Your task to perform on an android device: Open internet settings Image 0: 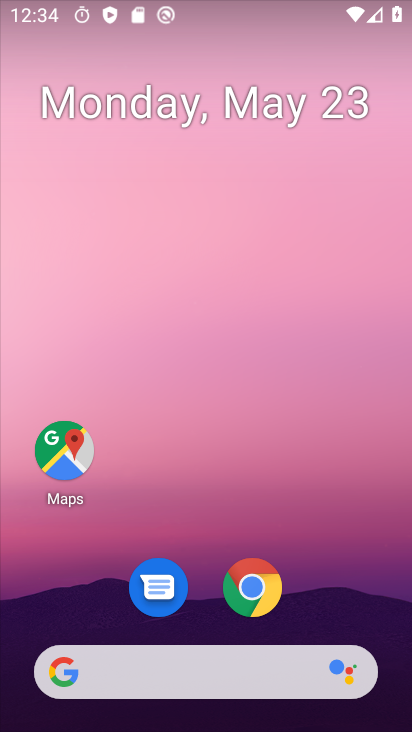
Step 0: drag from (191, 583) to (221, 91)
Your task to perform on an android device: Open internet settings Image 1: 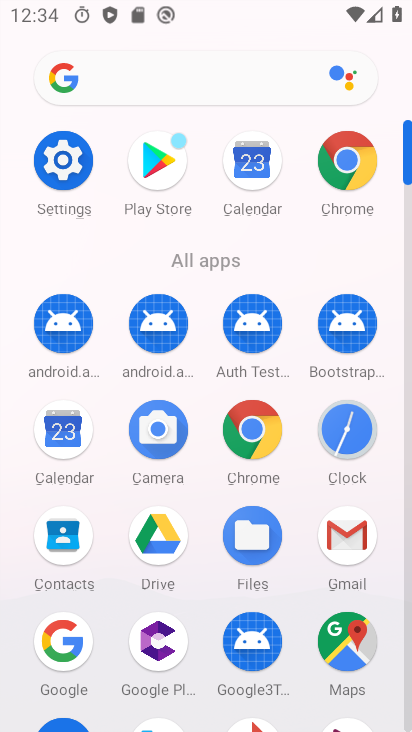
Step 1: click (348, 435)
Your task to perform on an android device: Open internet settings Image 2: 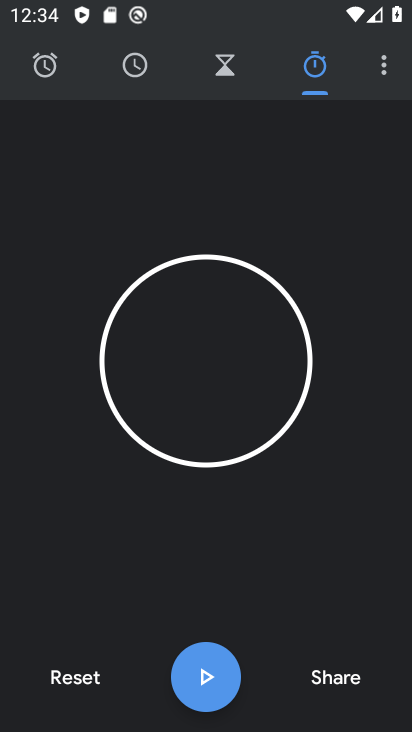
Step 2: press back button
Your task to perform on an android device: Open internet settings Image 3: 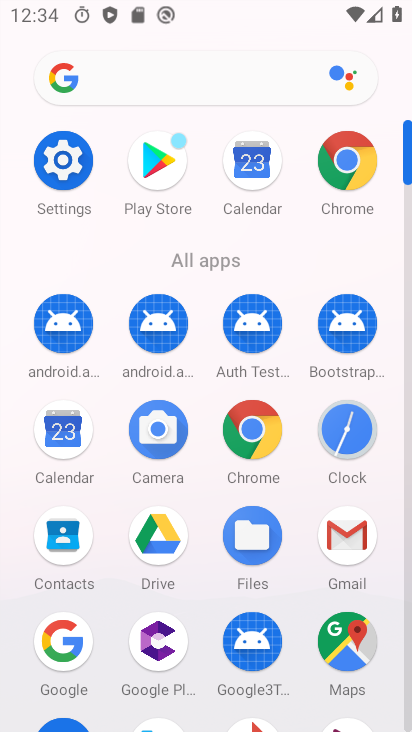
Step 3: drag from (176, 665) to (261, 119)
Your task to perform on an android device: Open internet settings Image 4: 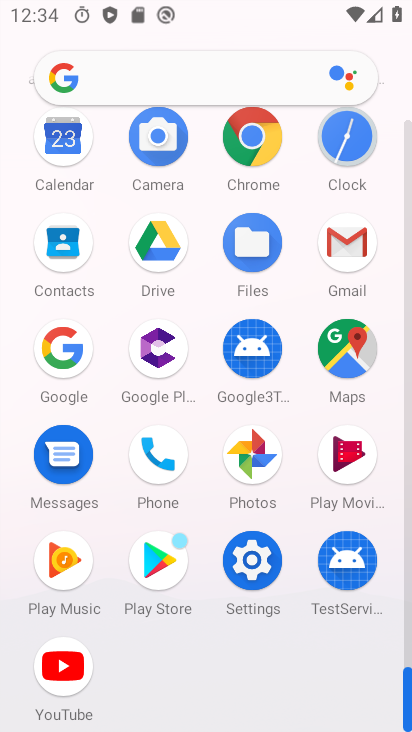
Step 4: click (260, 558)
Your task to perform on an android device: Open internet settings Image 5: 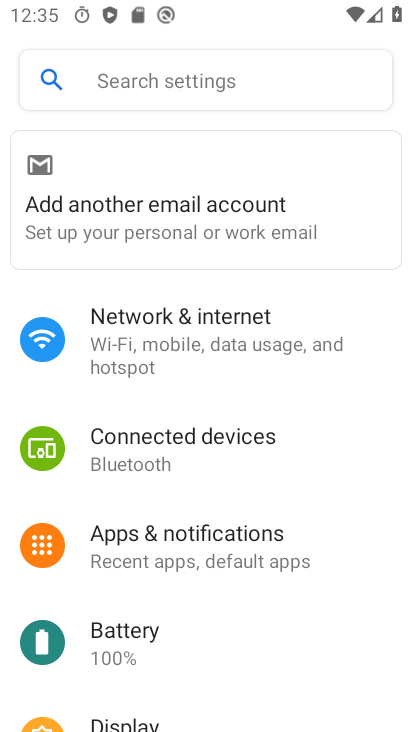
Step 5: click (191, 328)
Your task to perform on an android device: Open internet settings Image 6: 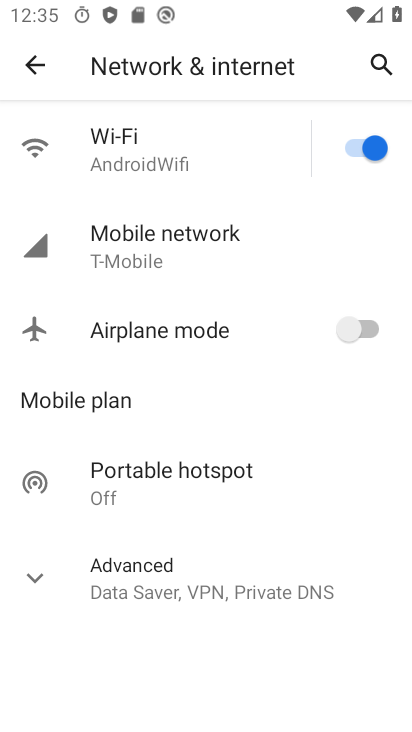
Step 6: task complete